Your task to perform on an android device: Open calendar and show me the second week of next month Image 0: 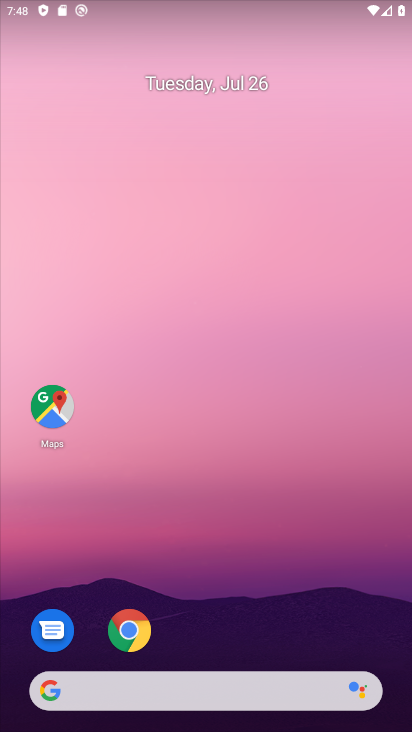
Step 0: drag from (287, 651) to (283, 90)
Your task to perform on an android device: Open calendar and show me the second week of next month Image 1: 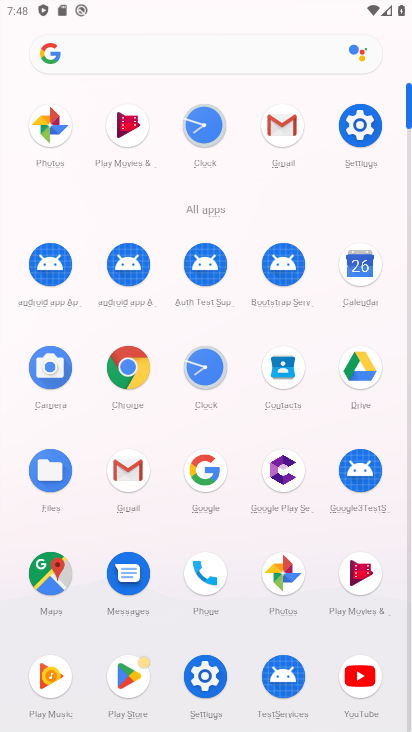
Step 1: click (362, 270)
Your task to perform on an android device: Open calendar and show me the second week of next month Image 2: 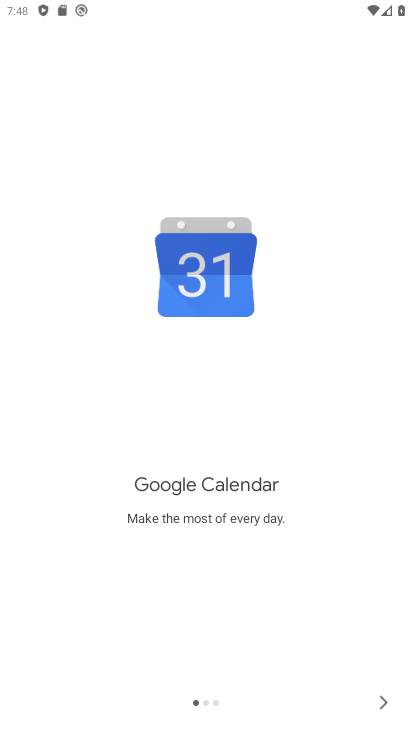
Step 2: click (386, 691)
Your task to perform on an android device: Open calendar and show me the second week of next month Image 3: 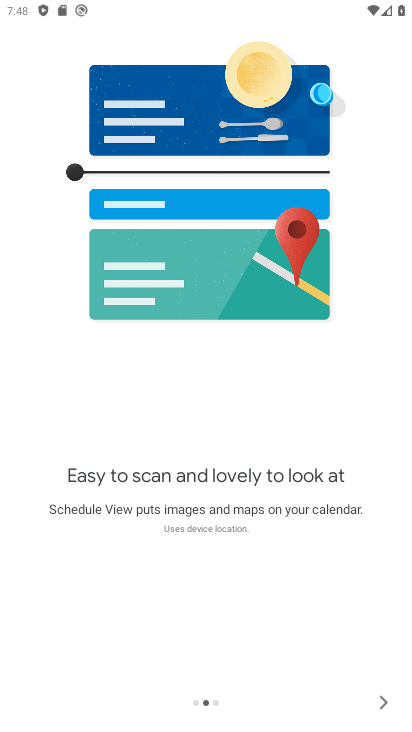
Step 3: click (386, 691)
Your task to perform on an android device: Open calendar and show me the second week of next month Image 4: 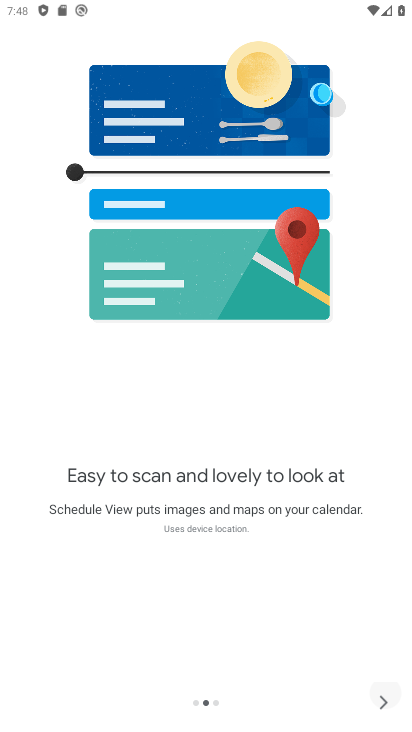
Step 4: click (386, 691)
Your task to perform on an android device: Open calendar and show me the second week of next month Image 5: 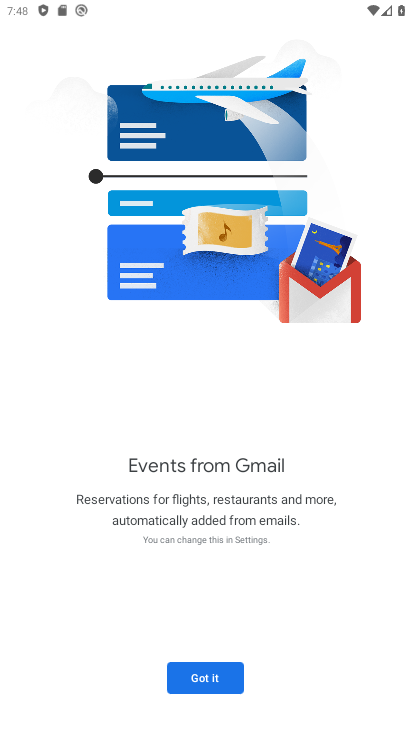
Step 5: click (203, 689)
Your task to perform on an android device: Open calendar and show me the second week of next month Image 6: 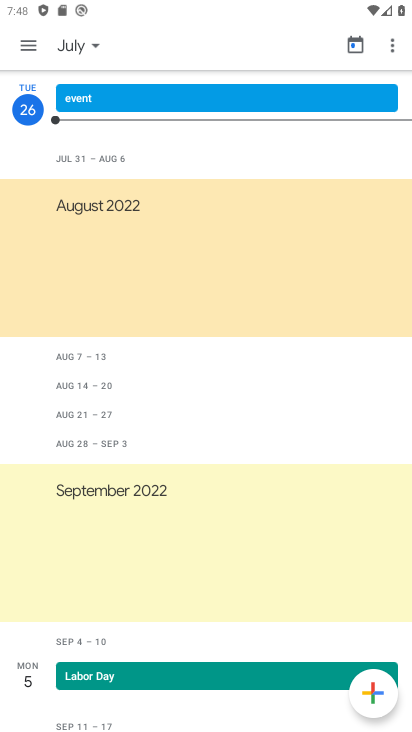
Step 6: click (399, 43)
Your task to perform on an android device: Open calendar and show me the second week of next month Image 7: 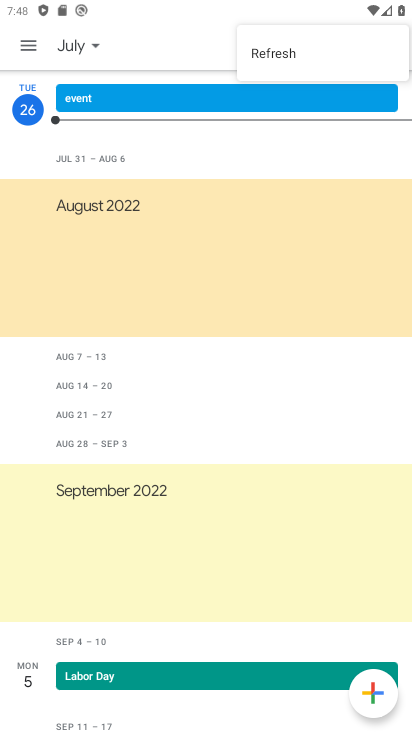
Step 7: click (18, 57)
Your task to perform on an android device: Open calendar and show me the second week of next month Image 8: 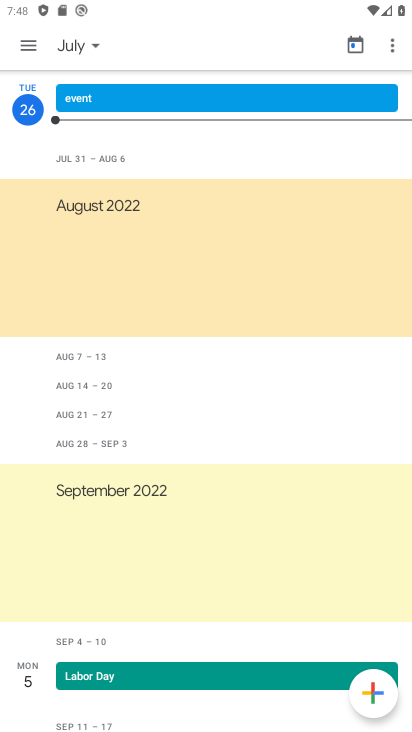
Step 8: click (19, 49)
Your task to perform on an android device: Open calendar and show me the second week of next month Image 9: 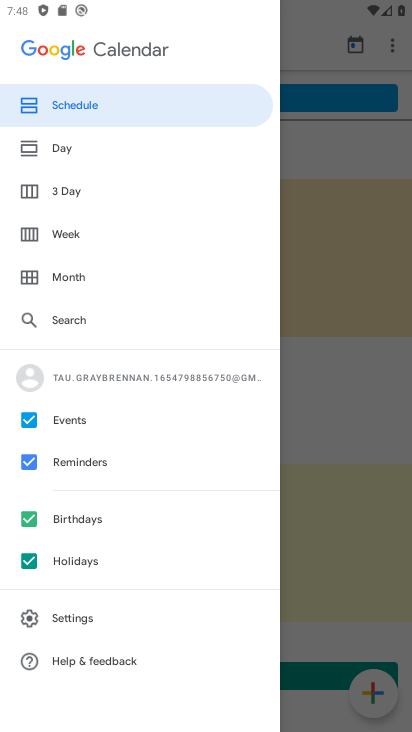
Step 9: task complete